Your task to perform on an android device: Open the web browser Image 0: 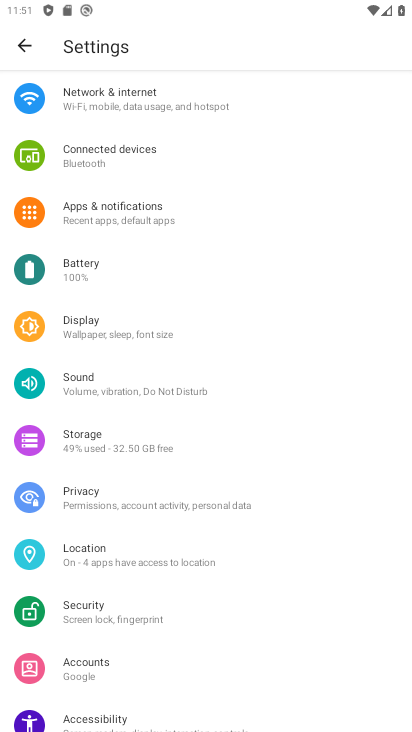
Step 0: press home button
Your task to perform on an android device: Open the web browser Image 1: 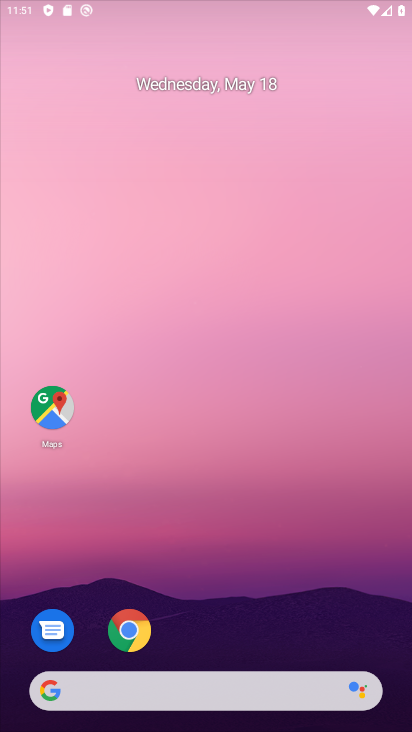
Step 1: drag from (213, 663) to (262, 195)
Your task to perform on an android device: Open the web browser Image 2: 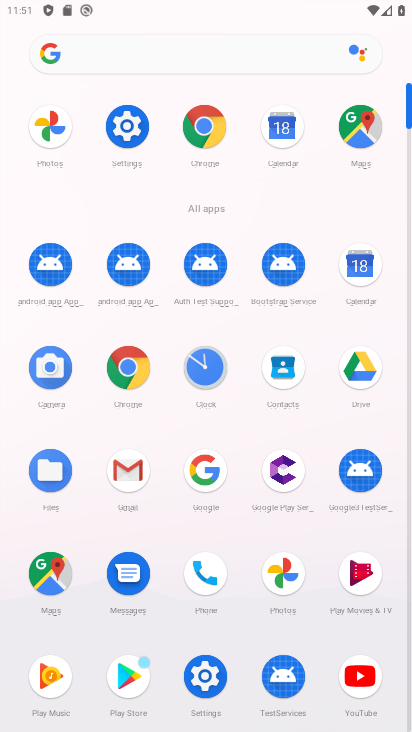
Step 2: click (204, 129)
Your task to perform on an android device: Open the web browser Image 3: 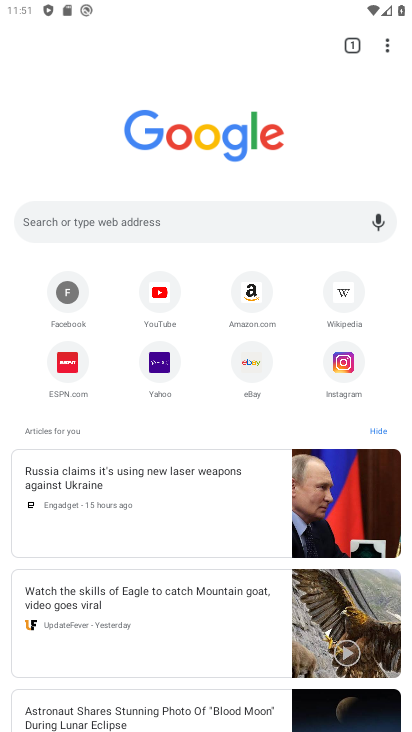
Step 3: task complete